Your task to perform on an android device: turn off location history Image 0: 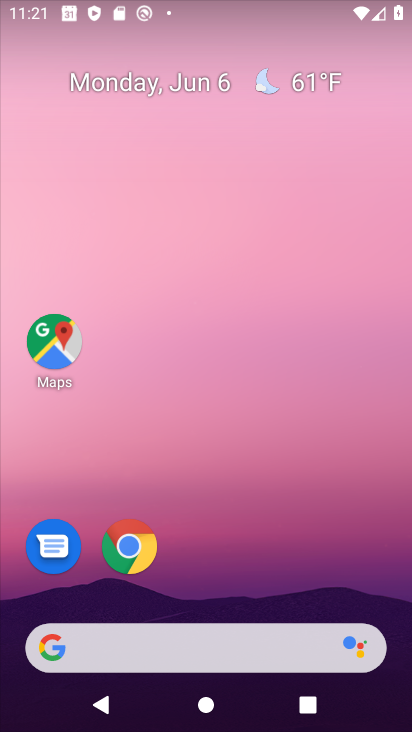
Step 0: drag from (189, 566) to (261, 28)
Your task to perform on an android device: turn off location history Image 1: 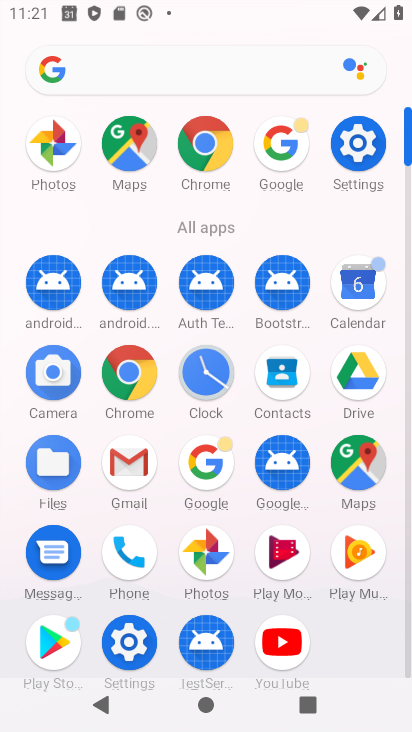
Step 1: click (359, 139)
Your task to perform on an android device: turn off location history Image 2: 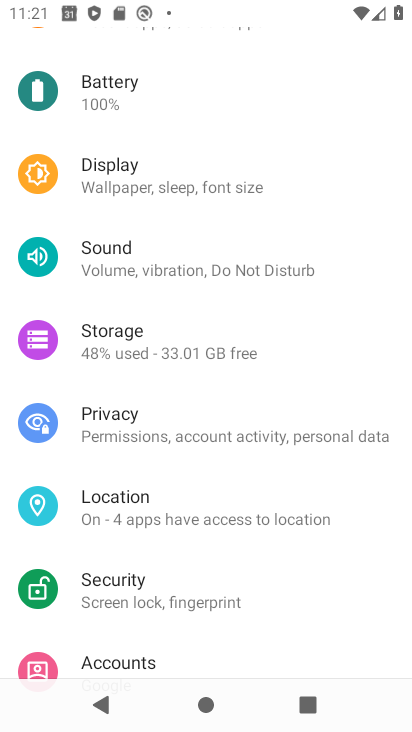
Step 2: click (142, 505)
Your task to perform on an android device: turn off location history Image 3: 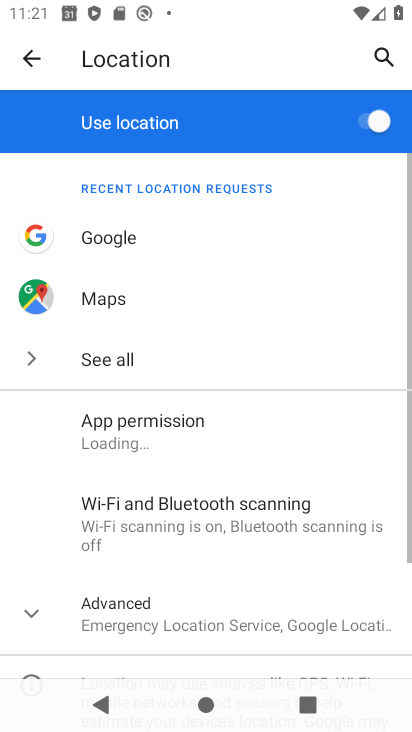
Step 3: drag from (173, 618) to (247, 224)
Your task to perform on an android device: turn off location history Image 4: 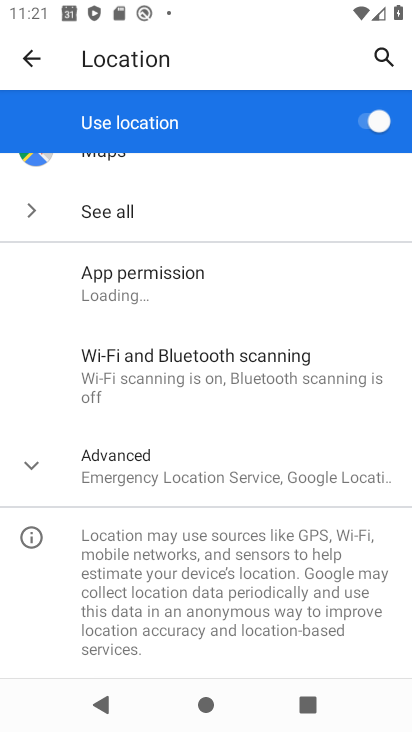
Step 4: click (157, 470)
Your task to perform on an android device: turn off location history Image 5: 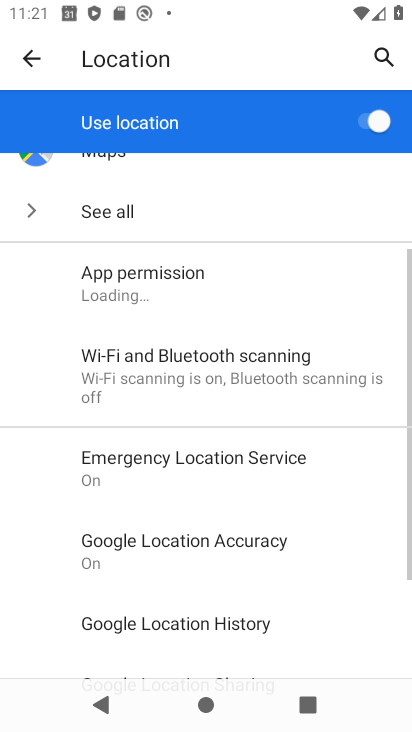
Step 5: click (226, 627)
Your task to perform on an android device: turn off location history Image 6: 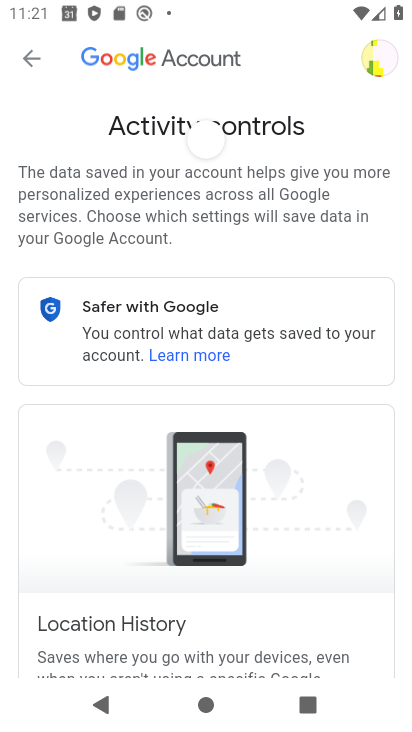
Step 6: drag from (167, 626) to (250, 146)
Your task to perform on an android device: turn off location history Image 7: 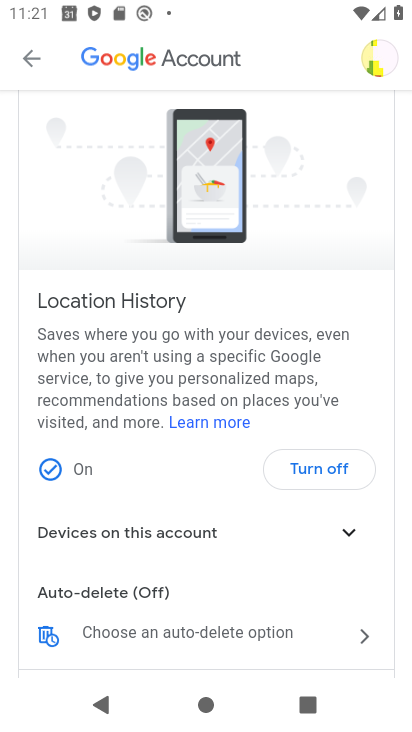
Step 7: click (314, 472)
Your task to perform on an android device: turn off location history Image 8: 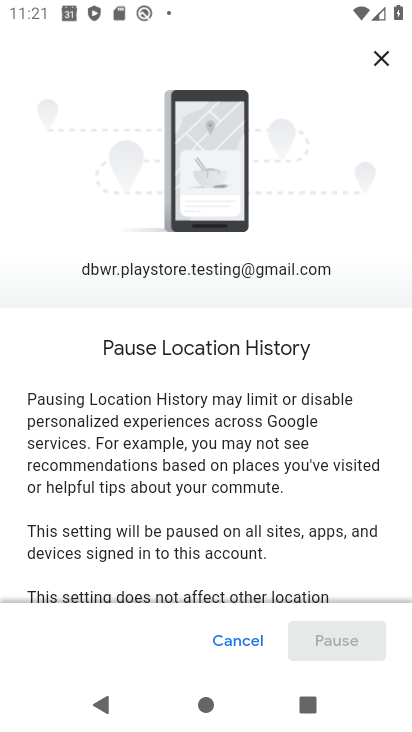
Step 8: drag from (212, 516) to (311, 38)
Your task to perform on an android device: turn off location history Image 9: 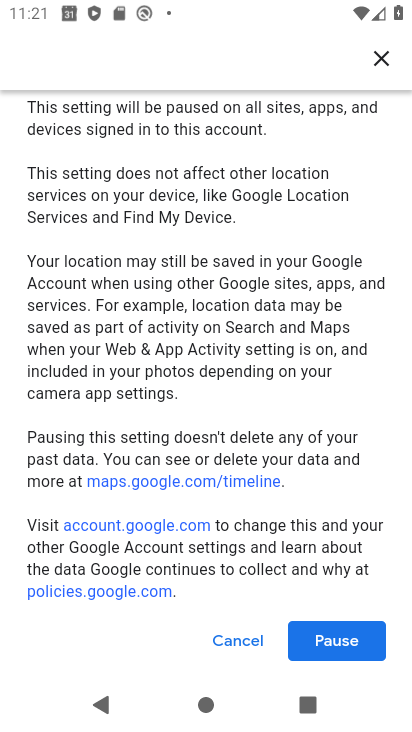
Step 9: drag from (285, 513) to (332, 79)
Your task to perform on an android device: turn off location history Image 10: 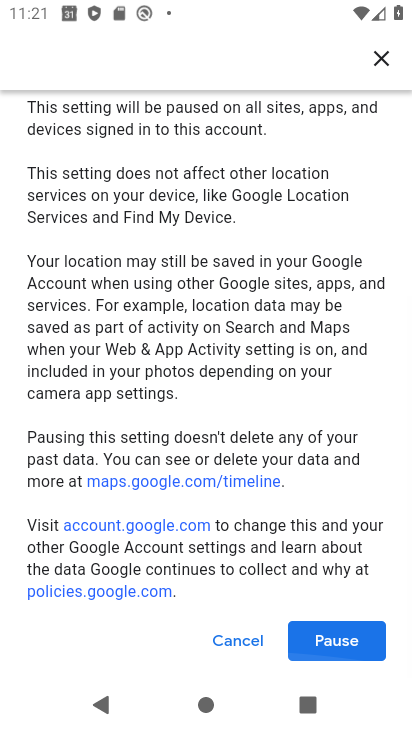
Step 10: click (337, 636)
Your task to perform on an android device: turn off location history Image 11: 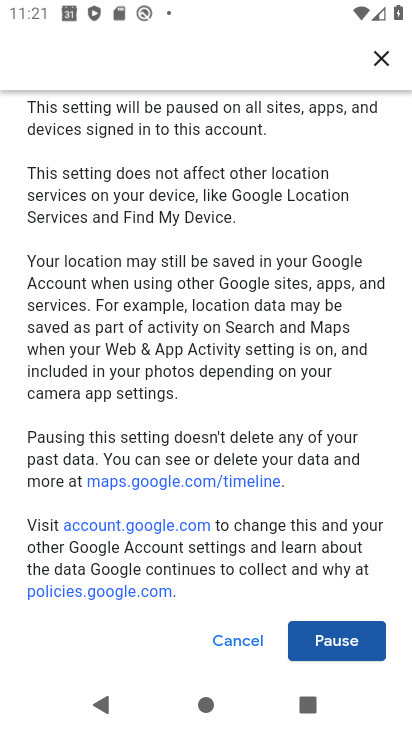
Step 11: click (336, 644)
Your task to perform on an android device: turn off location history Image 12: 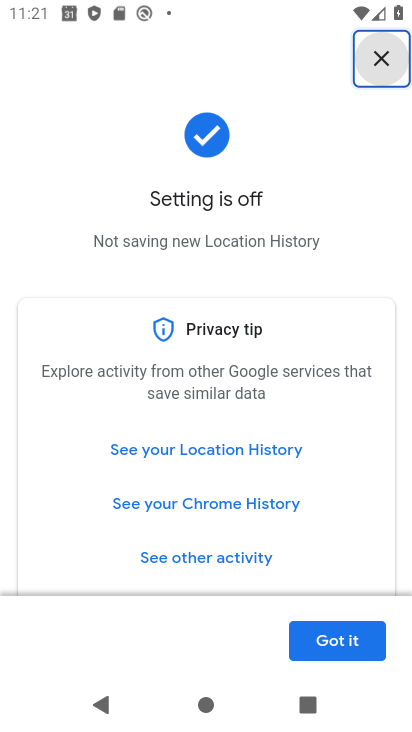
Step 12: click (312, 643)
Your task to perform on an android device: turn off location history Image 13: 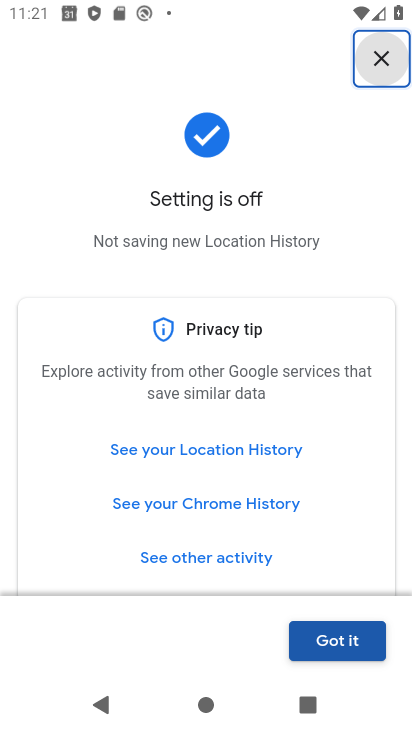
Step 13: task complete